Your task to perform on an android device: What's on my calendar today? Image 0: 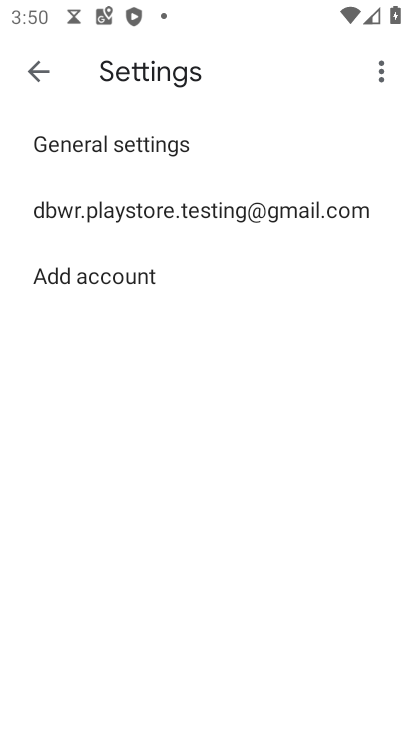
Step 0: press home button
Your task to perform on an android device: What's on my calendar today? Image 1: 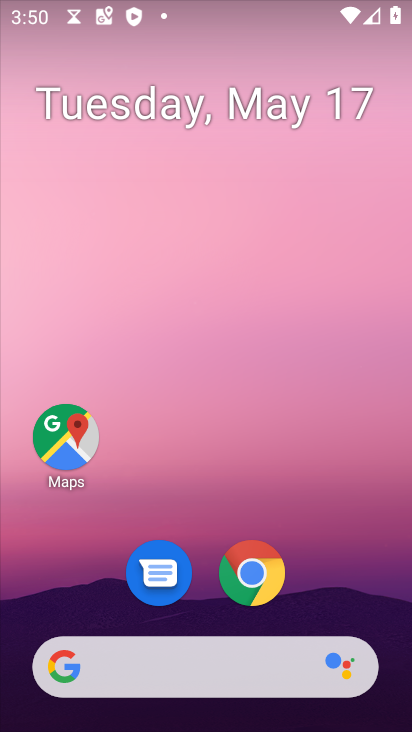
Step 1: drag from (348, 604) to (179, 92)
Your task to perform on an android device: What's on my calendar today? Image 2: 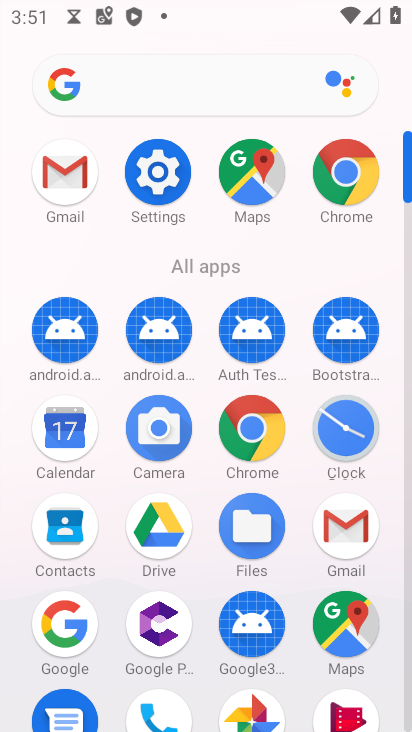
Step 2: click (52, 436)
Your task to perform on an android device: What's on my calendar today? Image 3: 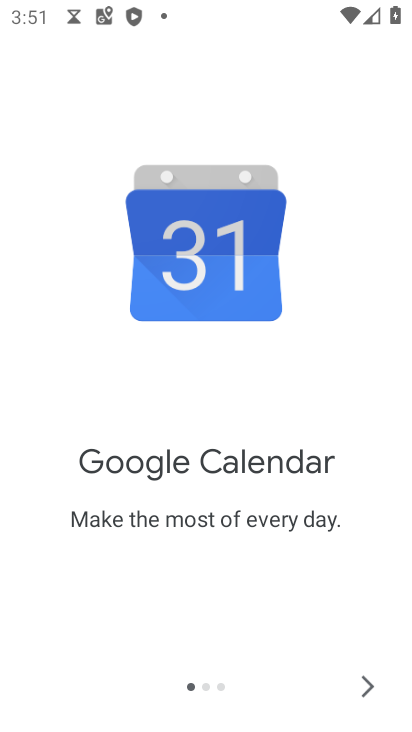
Step 3: click (367, 682)
Your task to perform on an android device: What's on my calendar today? Image 4: 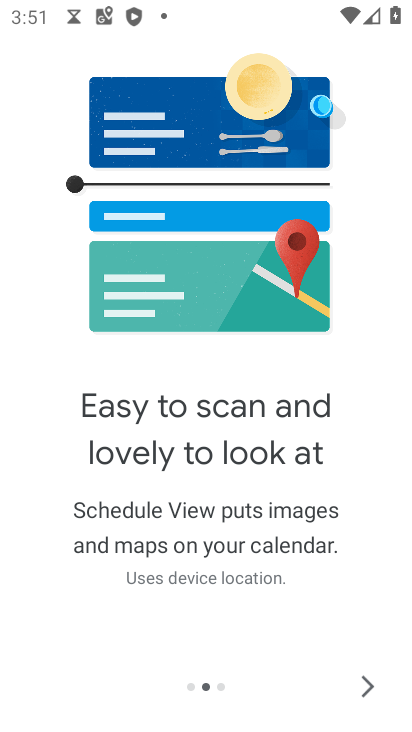
Step 4: click (367, 682)
Your task to perform on an android device: What's on my calendar today? Image 5: 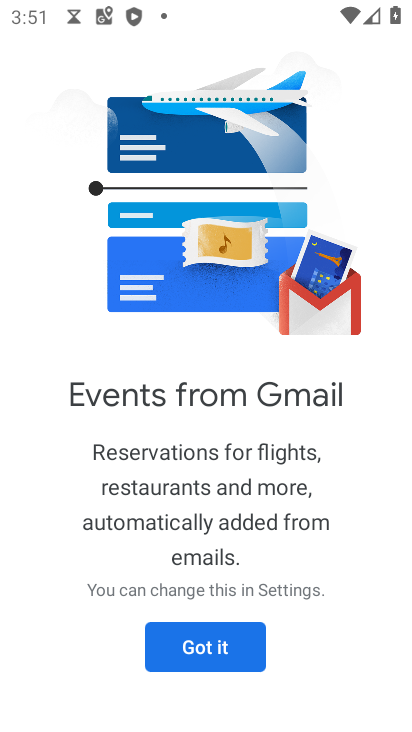
Step 5: click (367, 682)
Your task to perform on an android device: What's on my calendar today? Image 6: 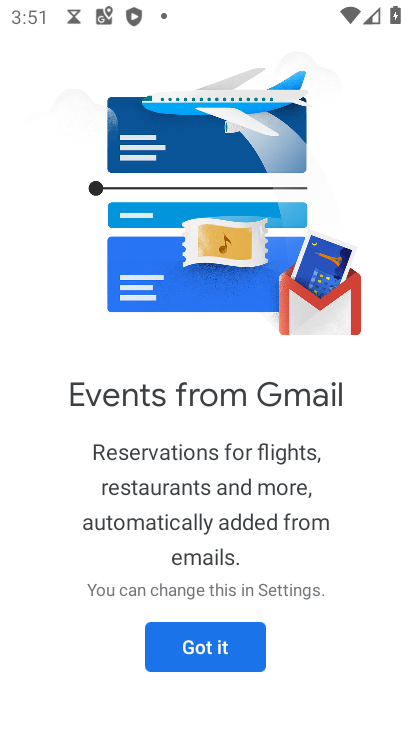
Step 6: click (253, 661)
Your task to perform on an android device: What's on my calendar today? Image 7: 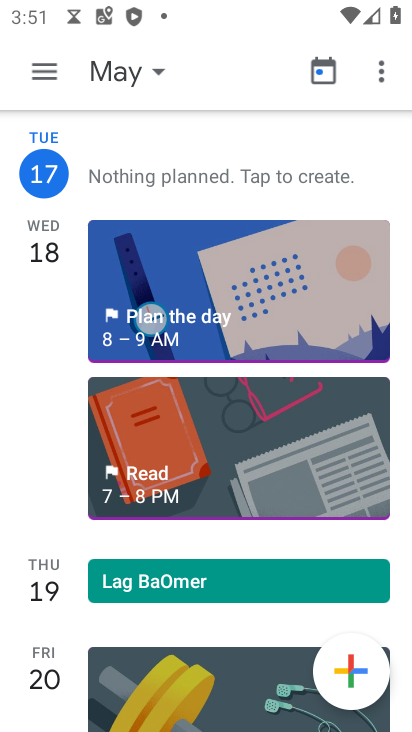
Step 7: click (50, 82)
Your task to perform on an android device: What's on my calendar today? Image 8: 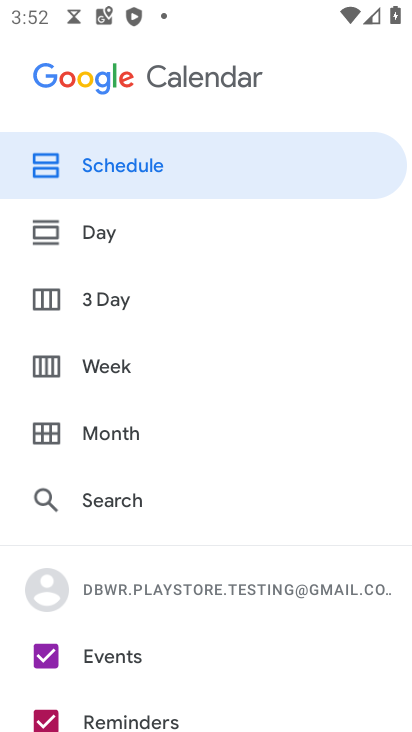
Step 8: click (157, 173)
Your task to perform on an android device: What's on my calendar today? Image 9: 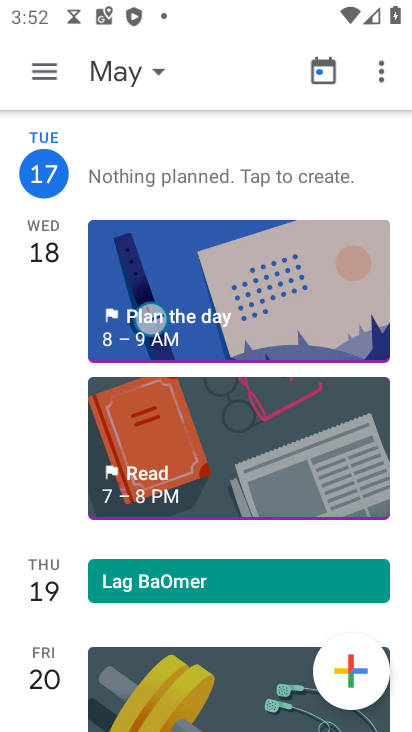
Step 9: task complete